Your task to perform on an android device: turn notification dots off Image 0: 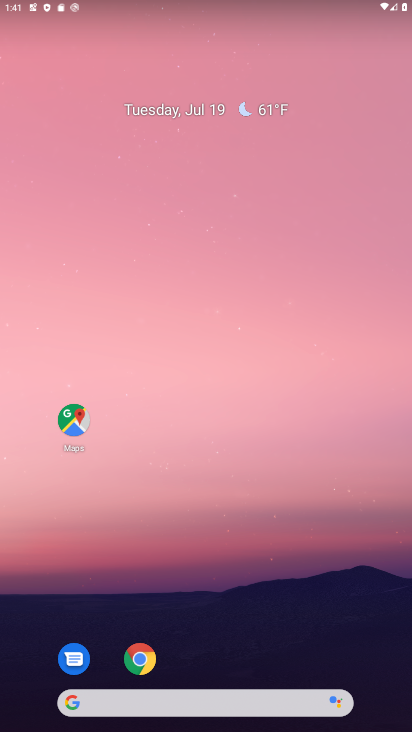
Step 0: drag from (282, 646) to (197, 109)
Your task to perform on an android device: turn notification dots off Image 1: 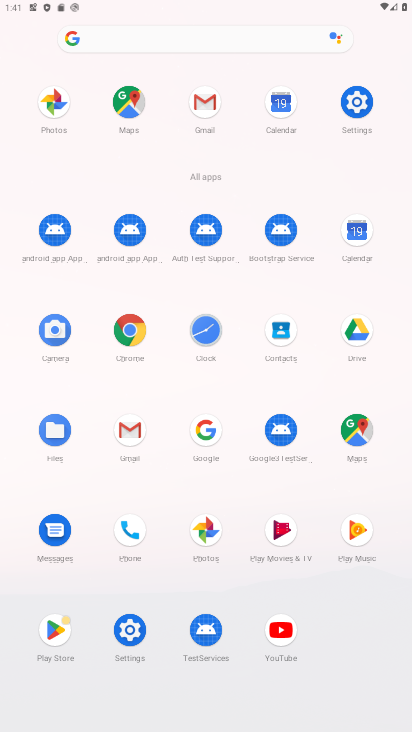
Step 1: click (126, 625)
Your task to perform on an android device: turn notification dots off Image 2: 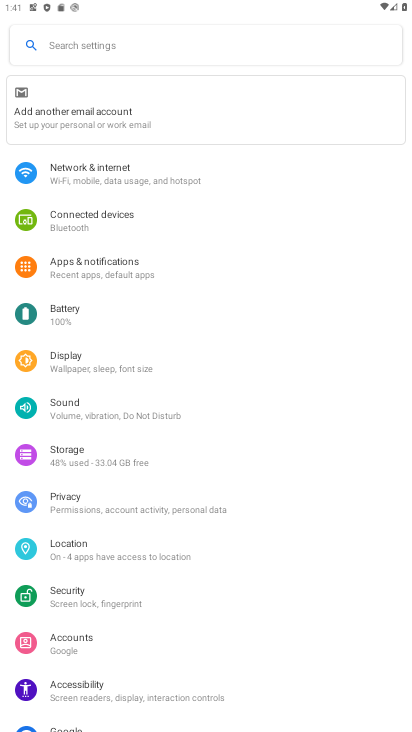
Step 2: click (122, 264)
Your task to perform on an android device: turn notification dots off Image 3: 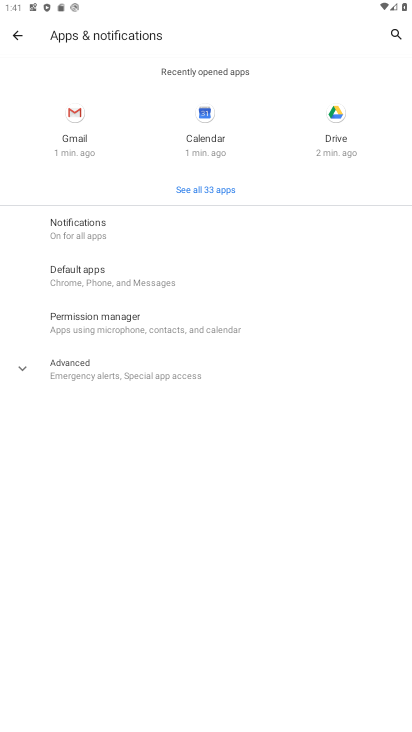
Step 3: click (138, 234)
Your task to perform on an android device: turn notification dots off Image 4: 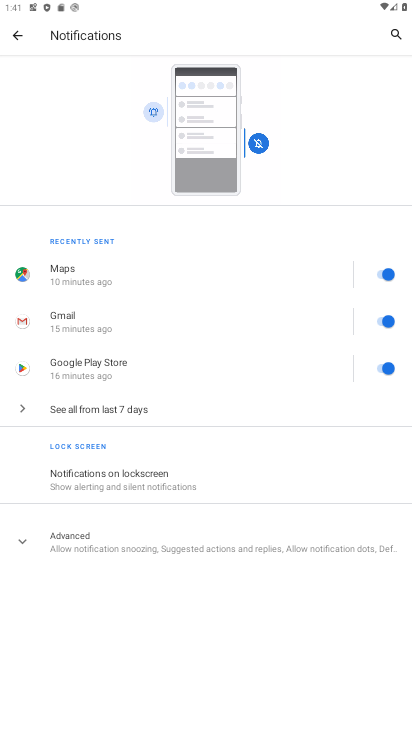
Step 4: click (154, 537)
Your task to perform on an android device: turn notification dots off Image 5: 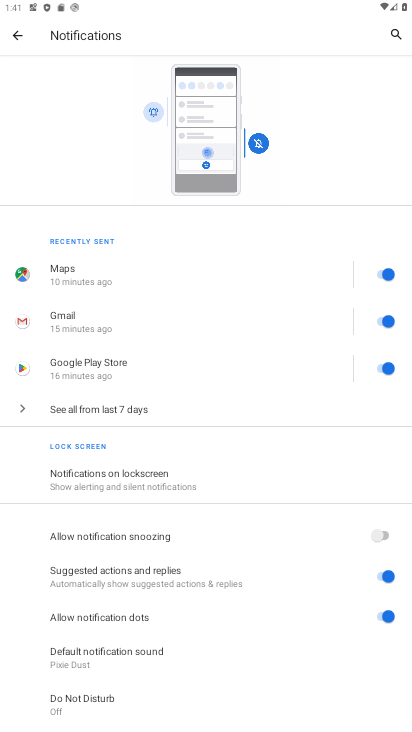
Step 5: click (390, 617)
Your task to perform on an android device: turn notification dots off Image 6: 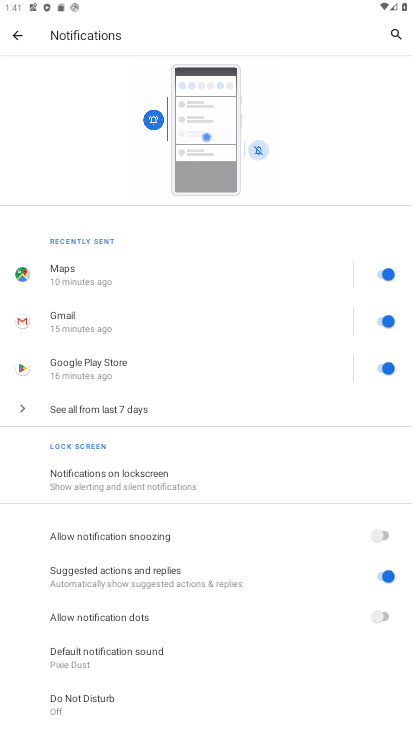
Step 6: task complete